Your task to perform on an android device: turn notification dots on Image 0: 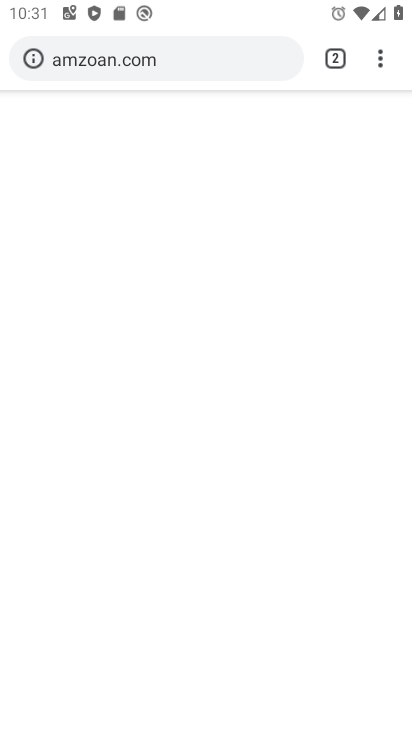
Step 0: press home button
Your task to perform on an android device: turn notification dots on Image 1: 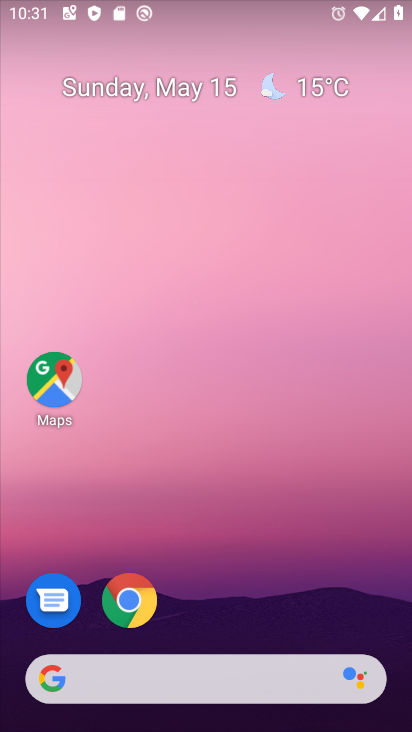
Step 1: drag from (329, 485) to (331, 110)
Your task to perform on an android device: turn notification dots on Image 2: 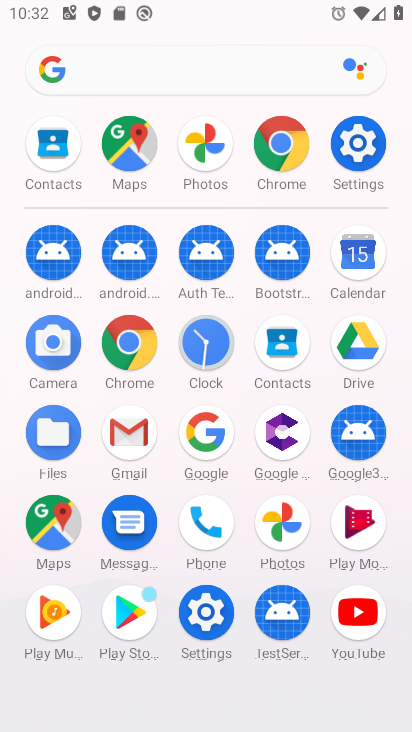
Step 2: click (367, 139)
Your task to perform on an android device: turn notification dots on Image 3: 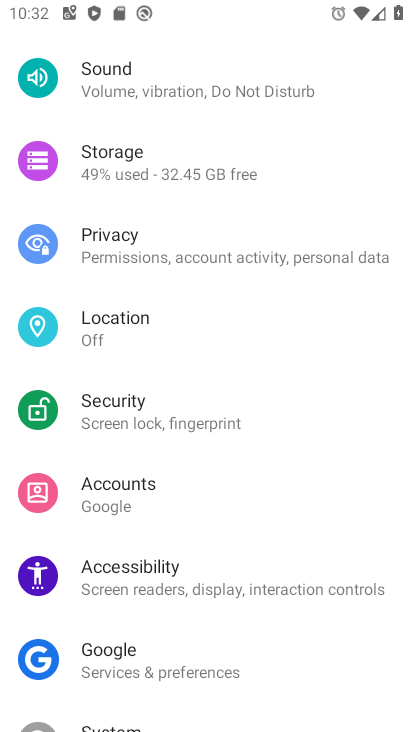
Step 3: drag from (343, 186) to (300, 544)
Your task to perform on an android device: turn notification dots on Image 4: 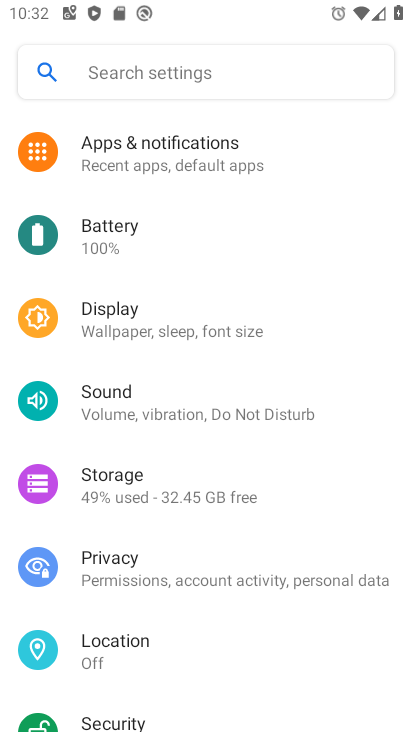
Step 4: click (196, 156)
Your task to perform on an android device: turn notification dots on Image 5: 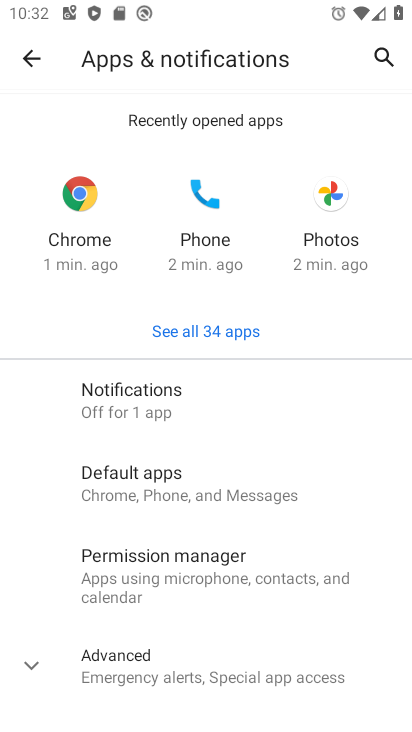
Step 5: click (139, 410)
Your task to perform on an android device: turn notification dots on Image 6: 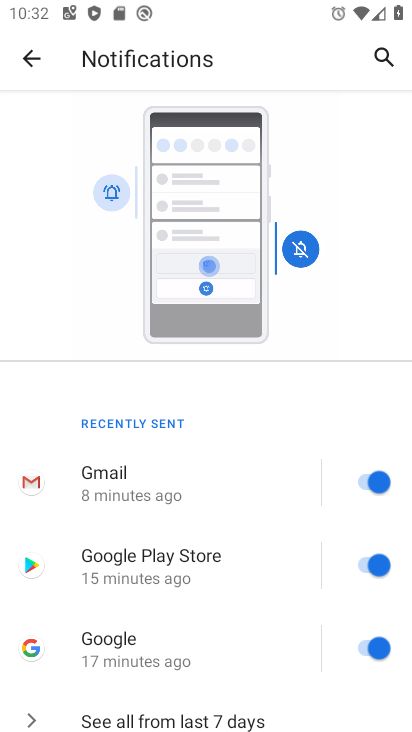
Step 6: drag from (271, 654) to (290, 362)
Your task to perform on an android device: turn notification dots on Image 7: 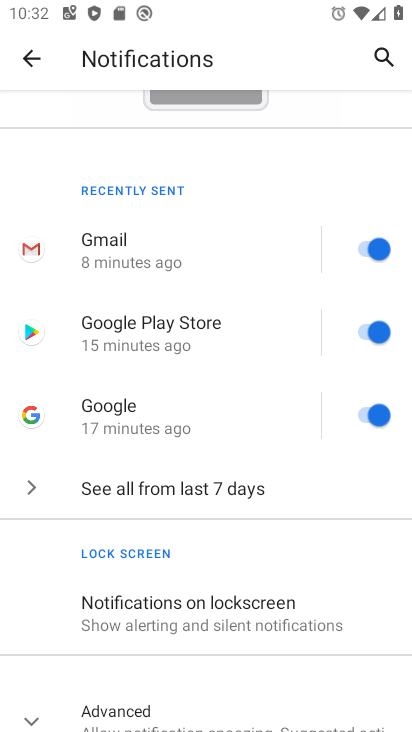
Step 7: drag from (300, 536) to (302, 398)
Your task to perform on an android device: turn notification dots on Image 8: 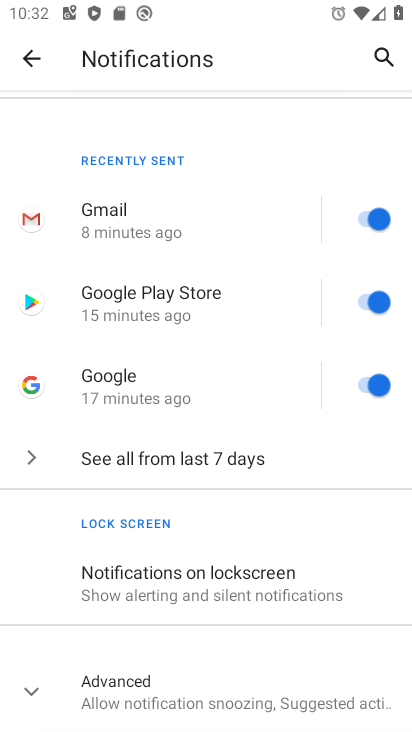
Step 8: click (214, 692)
Your task to perform on an android device: turn notification dots on Image 9: 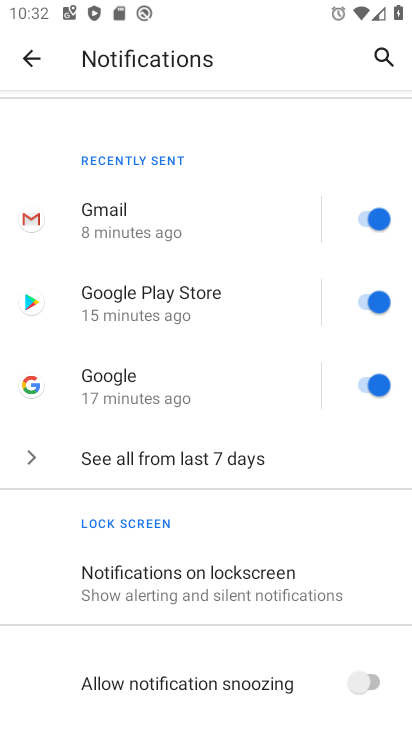
Step 9: task complete